Your task to perform on an android device: Go to internet settings Image 0: 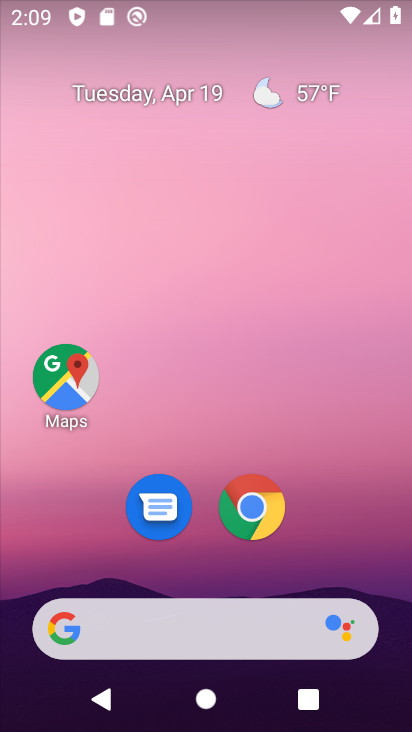
Step 0: drag from (236, 486) to (232, 112)
Your task to perform on an android device: Go to internet settings Image 1: 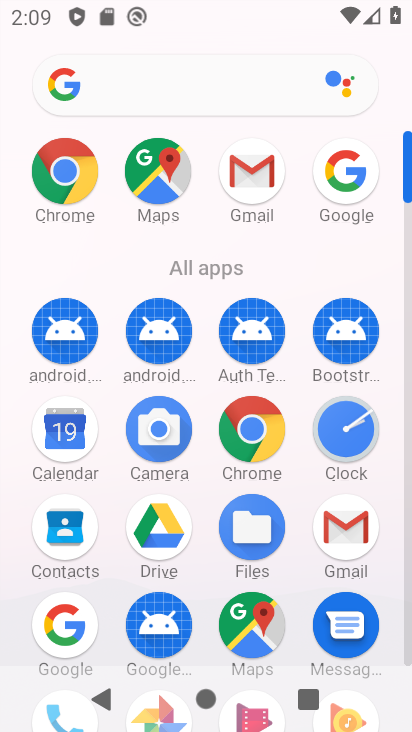
Step 1: drag from (222, 491) to (241, 73)
Your task to perform on an android device: Go to internet settings Image 2: 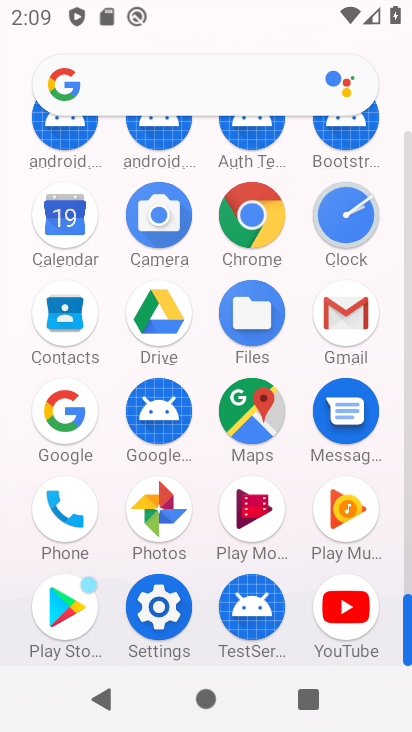
Step 2: click (157, 617)
Your task to perform on an android device: Go to internet settings Image 3: 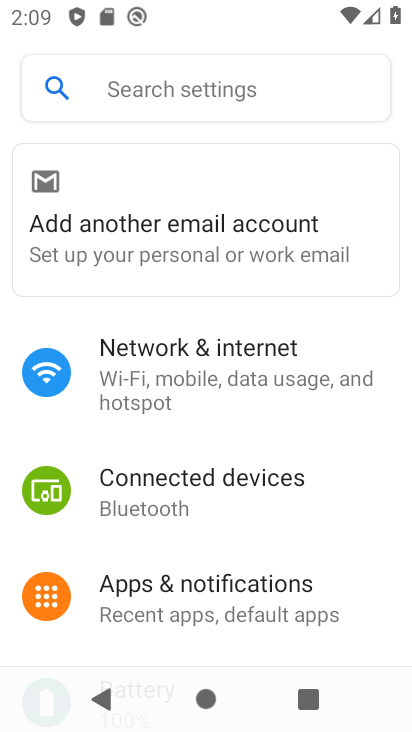
Step 3: click (226, 349)
Your task to perform on an android device: Go to internet settings Image 4: 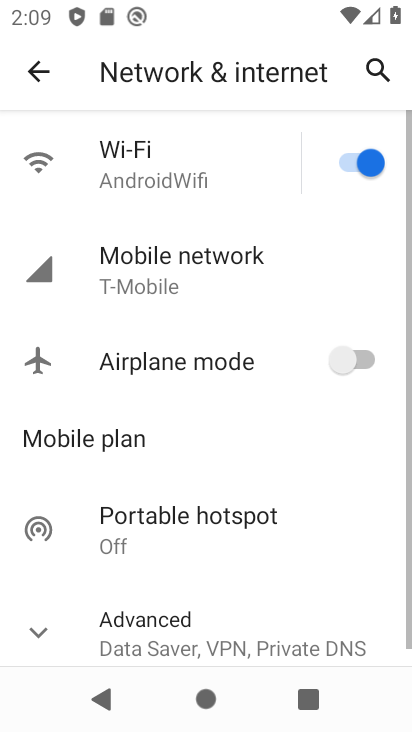
Step 4: click (216, 280)
Your task to perform on an android device: Go to internet settings Image 5: 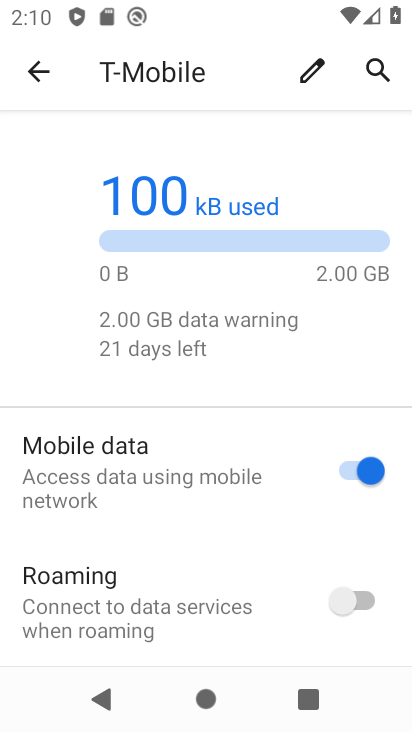
Step 5: task complete